Your task to perform on an android device: Go to Google Image 0: 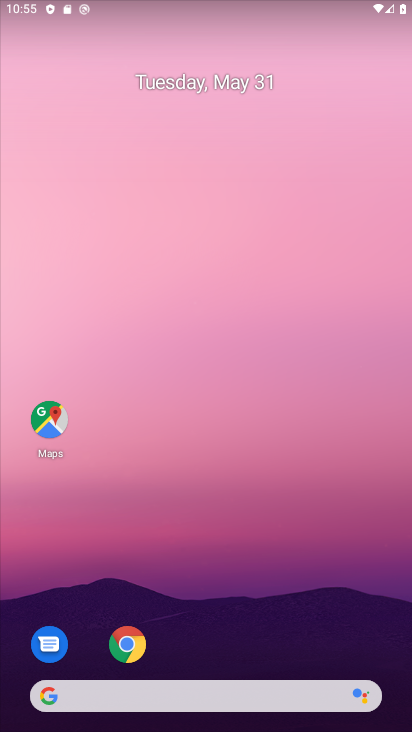
Step 0: drag from (143, 650) to (234, 189)
Your task to perform on an android device: Go to Google Image 1: 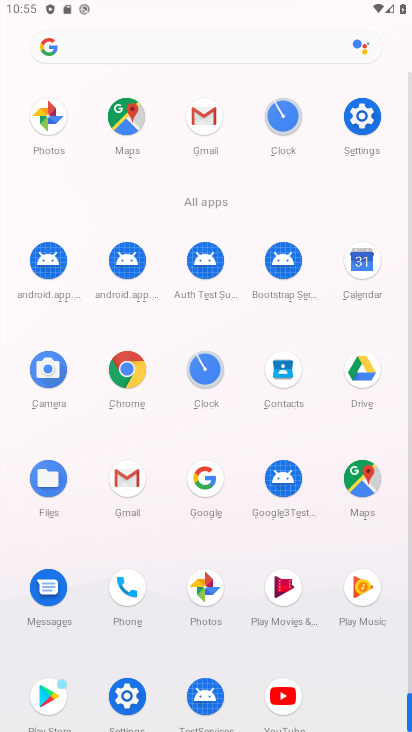
Step 1: click (212, 466)
Your task to perform on an android device: Go to Google Image 2: 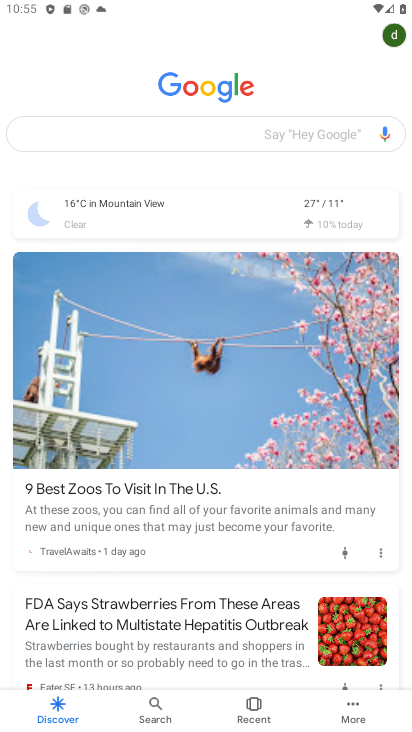
Step 2: task complete